Your task to perform on an android device: toggle notifications settings in the gmail app Image 0: 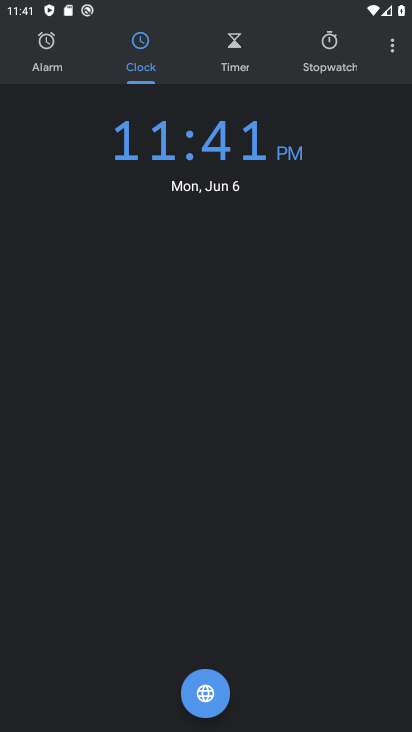
Step 0: press home button
Your task to perform on an android device: toggle notifications settings in the gmail app Image 1: 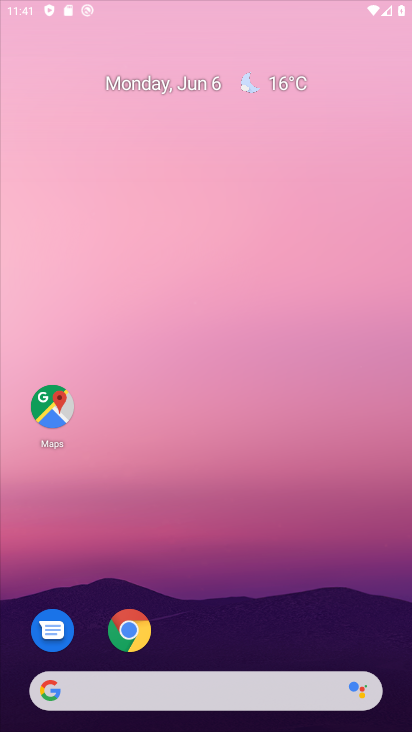
Step 1: drag from (357, 661) to (282, 79)
Your task to perform on an android device: toggle notifications settings in the gmail app Image 2: 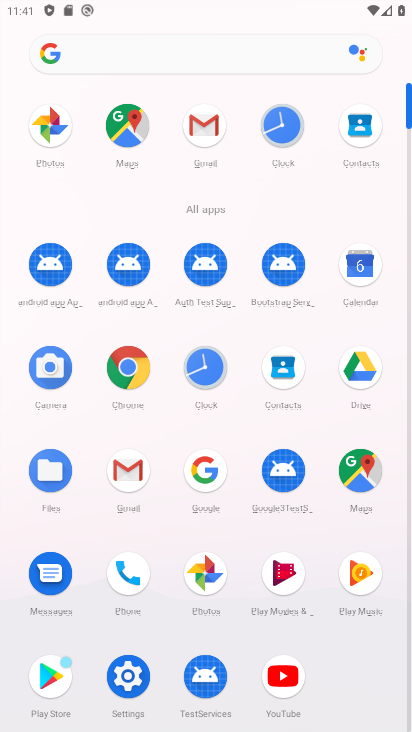
Step 2: click (140, 473)
Your task to perform on an android device: toggle notifications settings in the gmail app Image 3: 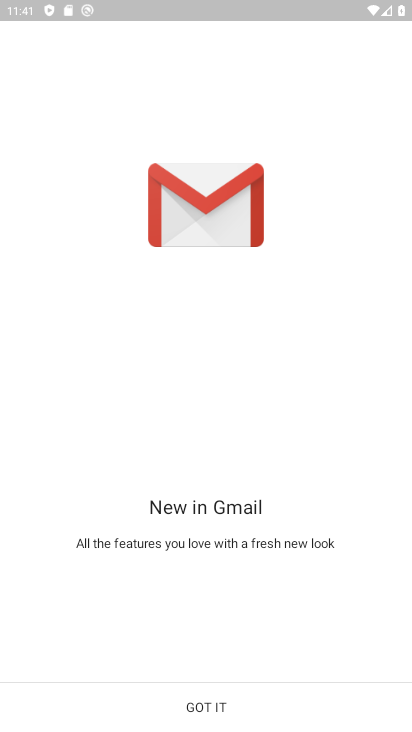
Step 3: click (227, 690)
Your task to perform on an android device: toggle notifications settings in the gmail app Image 4: 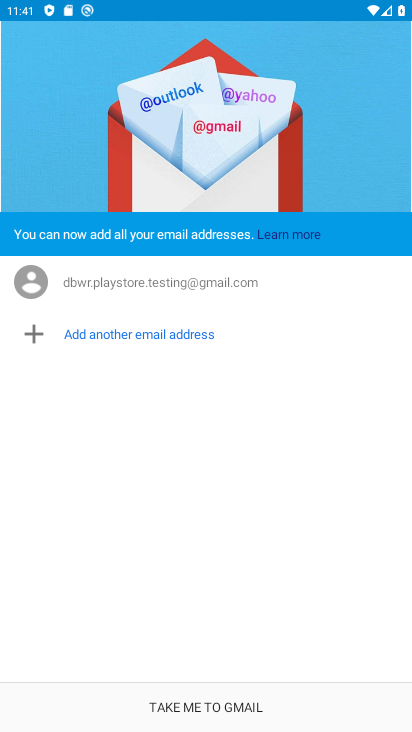
Step 4: click (227, 690)
Your task to perform on an android device: toggle notifications settings in the gmail app Image 5: 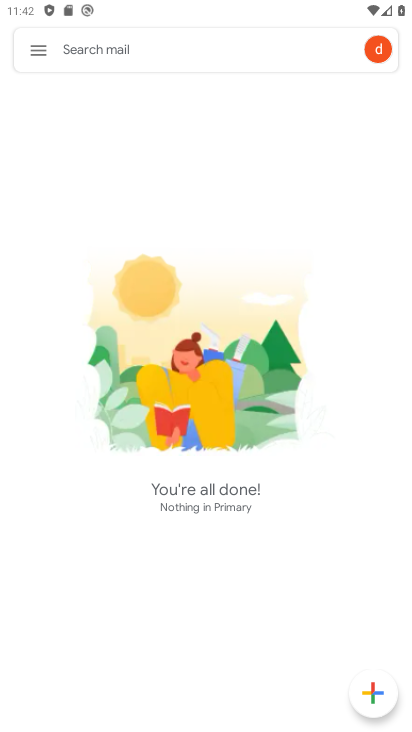
Step 5: click (36, 54)
Your task to perform on an android device: toggle notifications settings in the gmail app Image 6: 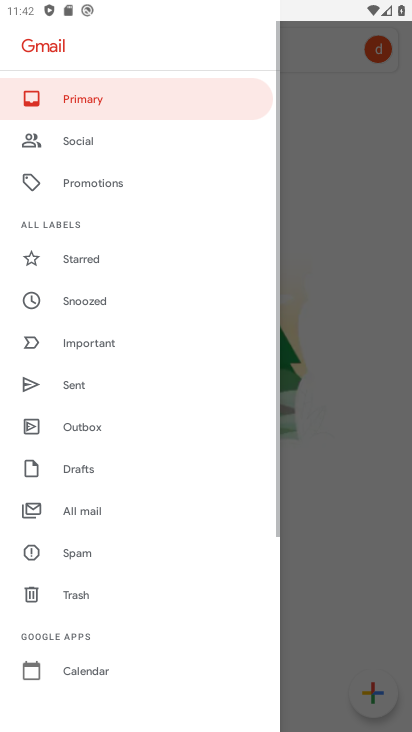
Step 6: drag from (97, 641) to (131, 106)
Your task to perform on an android device: toggle notifications settings in the gmail app Image 7: 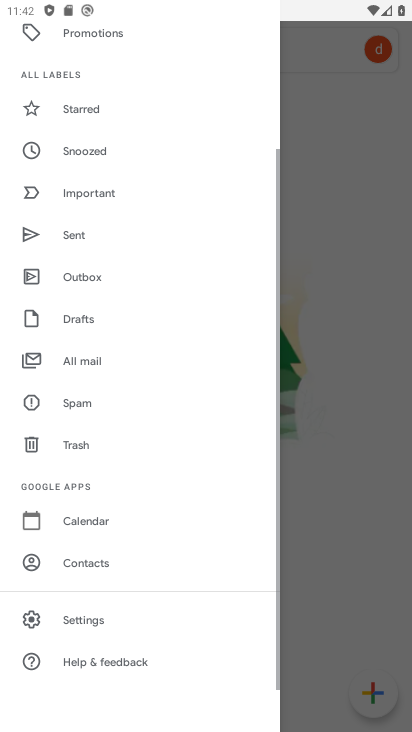
Step 7: click (70, 611)
Your task to perform on an android device: toggle notifications settings in the gmail app Image 8: 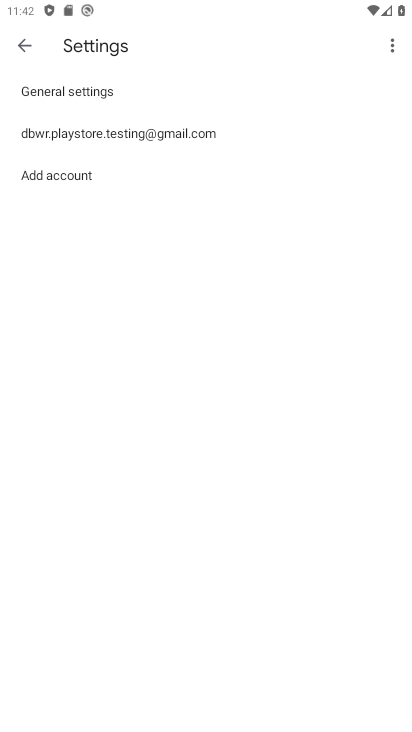
Step 8: click (108, 142)
Your task to perform on an android device: toggle notifications settings in the gmail app Image 9: 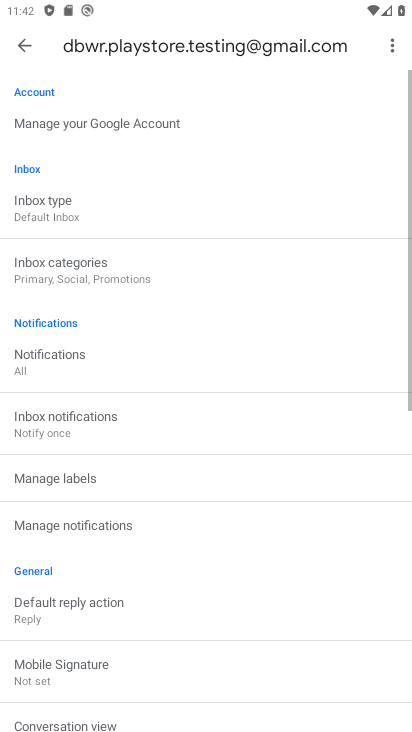
Step 9: click (70, 364)
Your task to perform on an android device: toggle notifications settings in the gmail app Image 10: 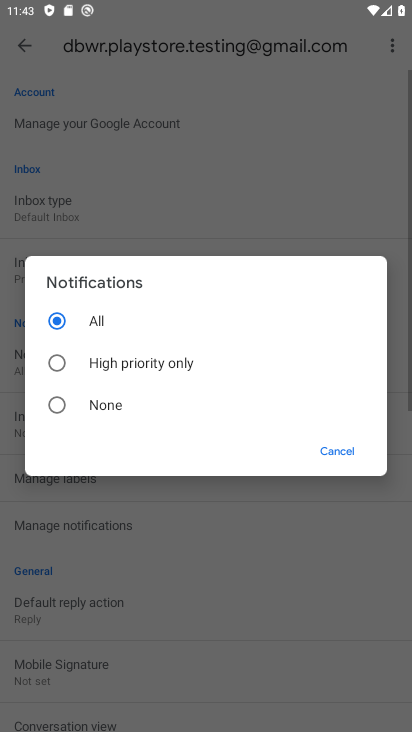
Step 10: click (94, 409)
Your task to perform on an android device: toggle notifications settings in the gmail app Image 11: 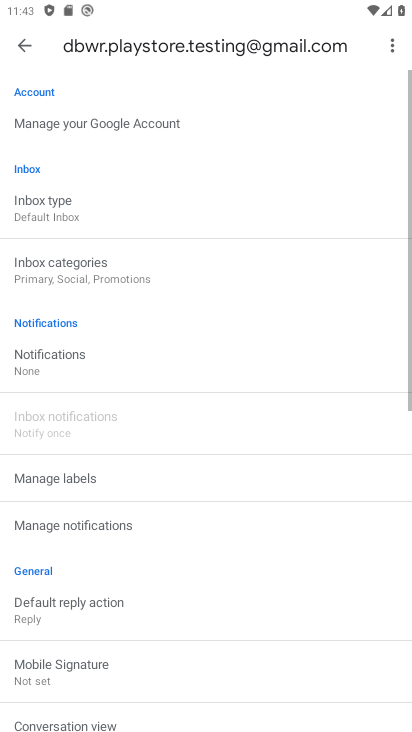
Step 11: task complete